Your task to perform on an android device: turn on location history Image 0: 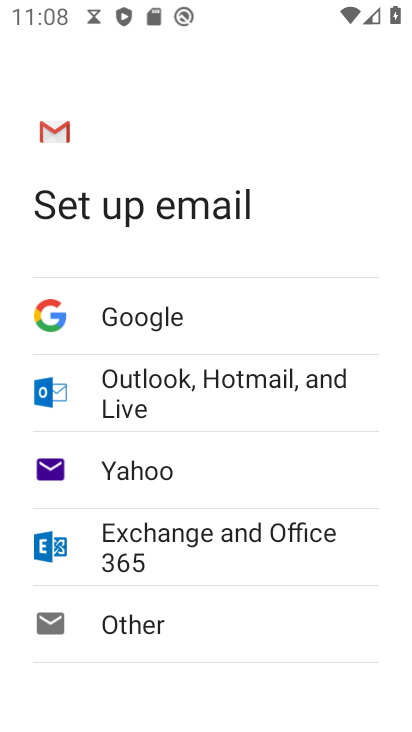
Step 0: press home button
Your task to perform on an android device: turn on location history Image 1: 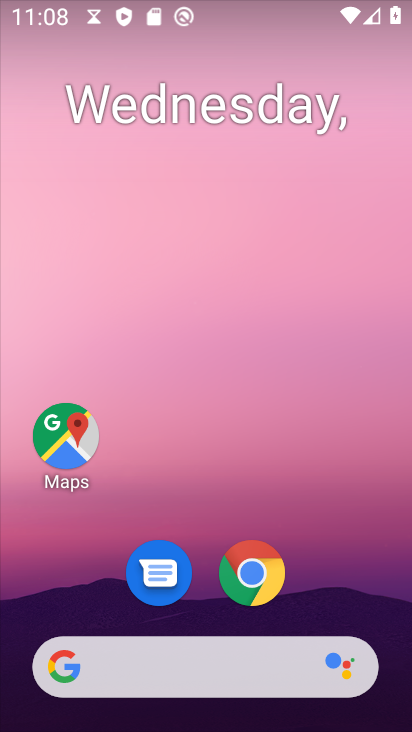
Step 1: click (82, 423)
Your task to perform on an android device: turn on location history Image 2: 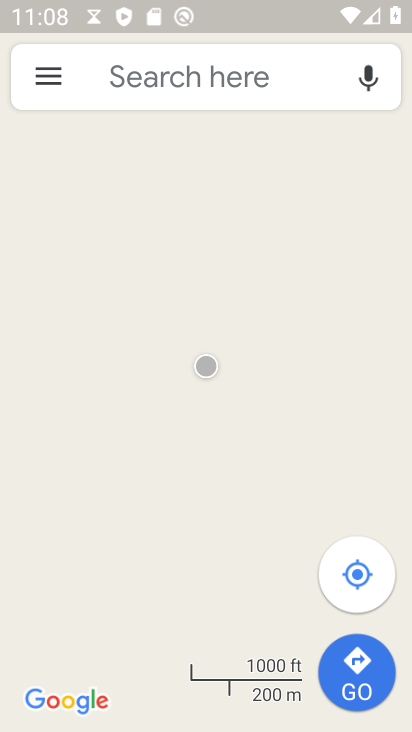
Step 2: click (55, 89)
Your task to perform on an android device: turn on location history Image 3: 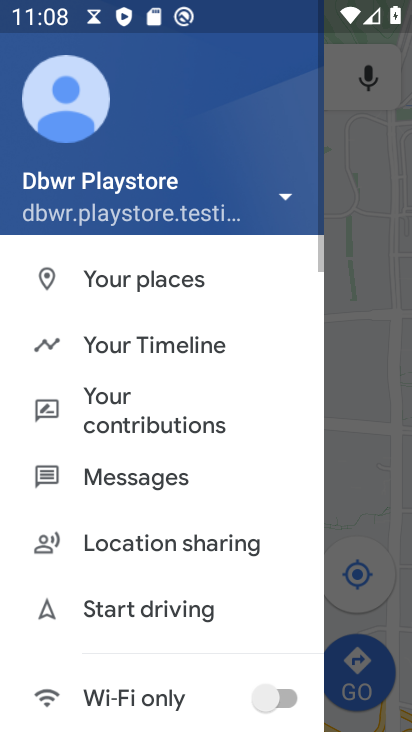
Step 3: click (137, 333)
Your task to perform on an android device: turn on location history Image 4: 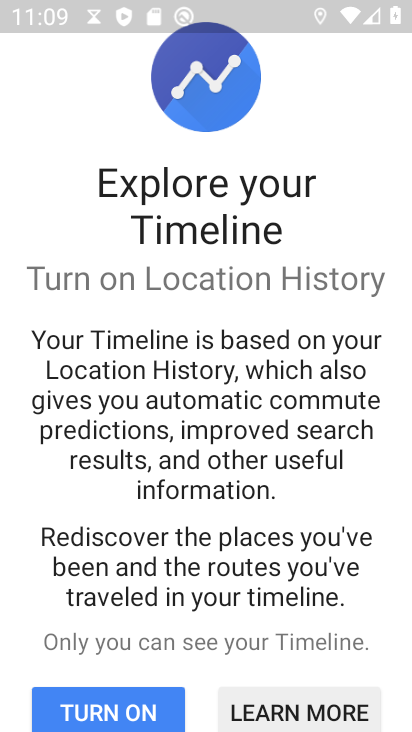
Step 4: drag from (218, 646) to (205, 200)
Your task to perform on an android device: turn on location history Image 5: 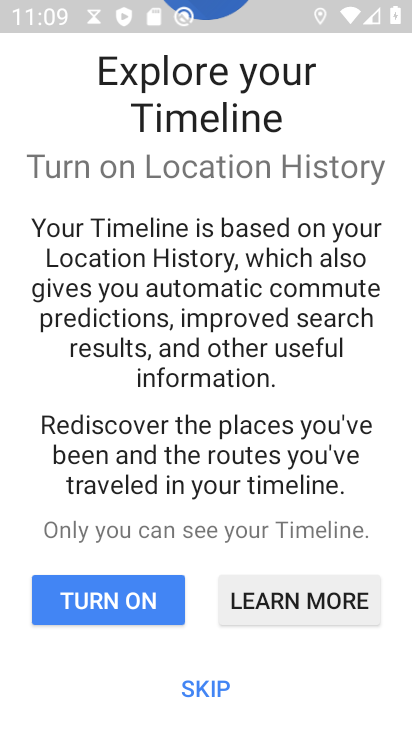
Step 5: click (165, 611)
Your task to perform on an android device: turn on location history Image 6: 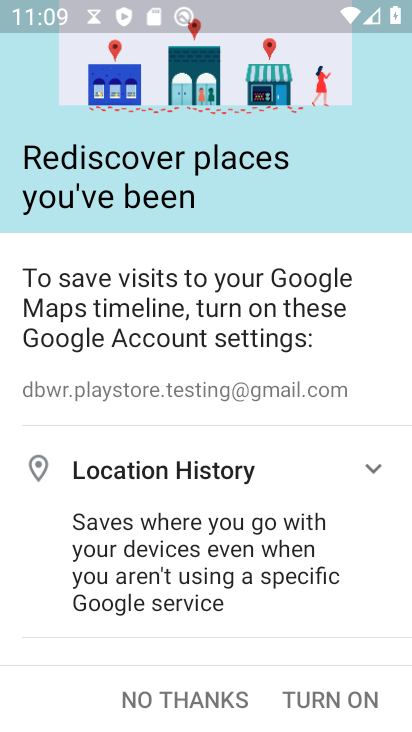
Step 6: drag from (248, 630) to (224, 154)
Your task to perform on an android device: turn on location history Image 7: 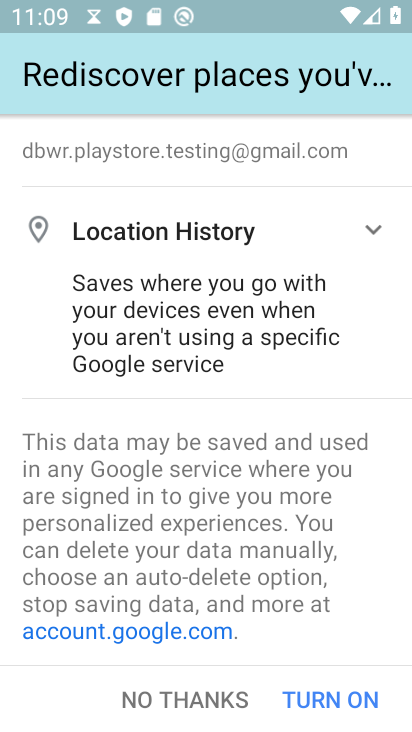
Step 7: click (341, 693)
Your task to perform on an android device: turn on location history Image 8: 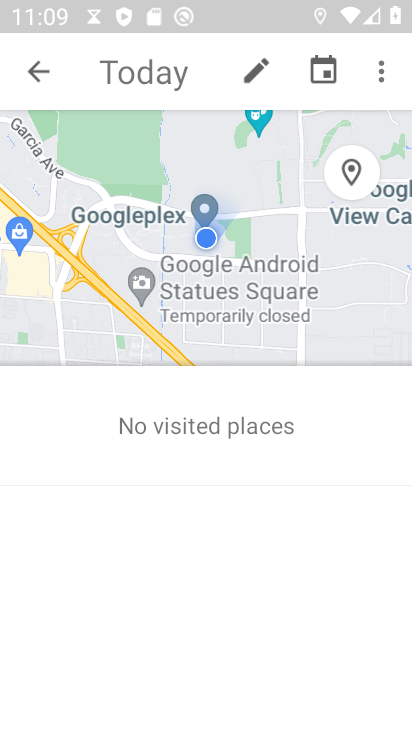
Step 8: task complete